Your task to perform on an android device: check android version Image 0: 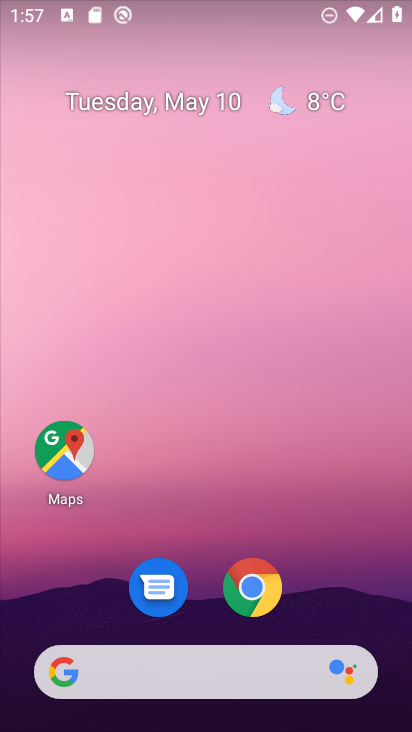
Step 0: drag from (389, 647) to (352, 224)
Your task to perform on an android device: check android version Image 1: 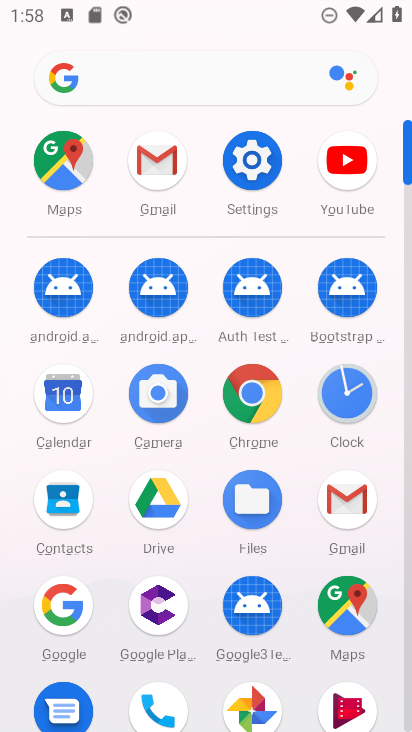
Step 1: click (400, 257)
Your task to perform on an android device: check android version Image 2: 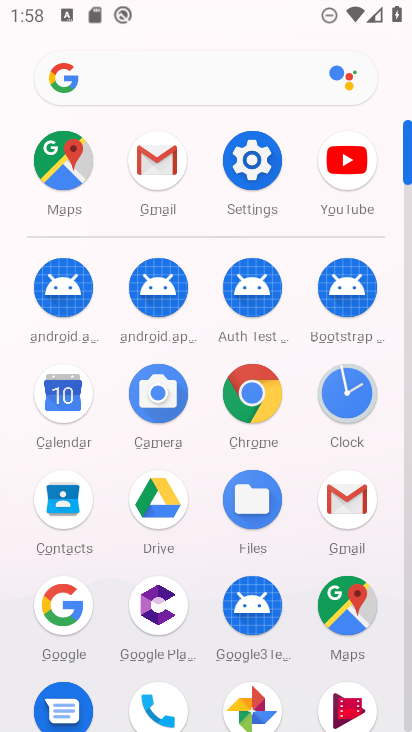
Step 2: click (63, 611)
Your task to perform on an android device: check android version Image 3: 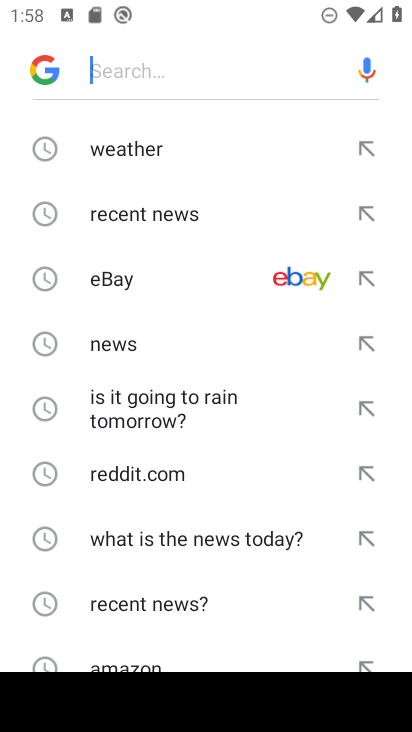
Step 3: press back button
Your task to perform on an android device: check android version Image 4: 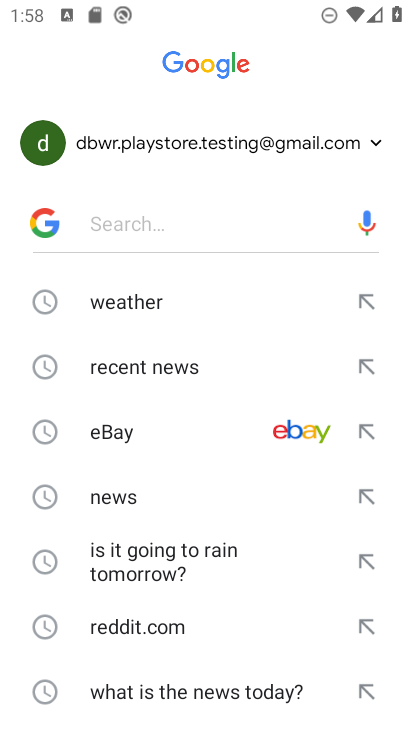
Step 4: press back button
Your task to perform on an android device: check android version Image 5: 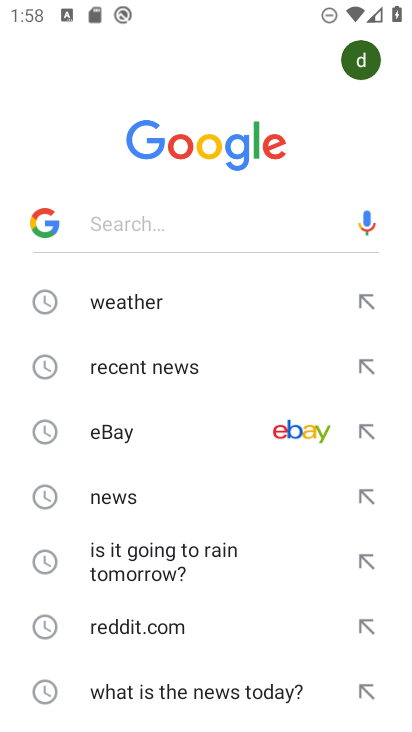
Step 5: press back button
Your task to perform on an android device: check android version Image 6: 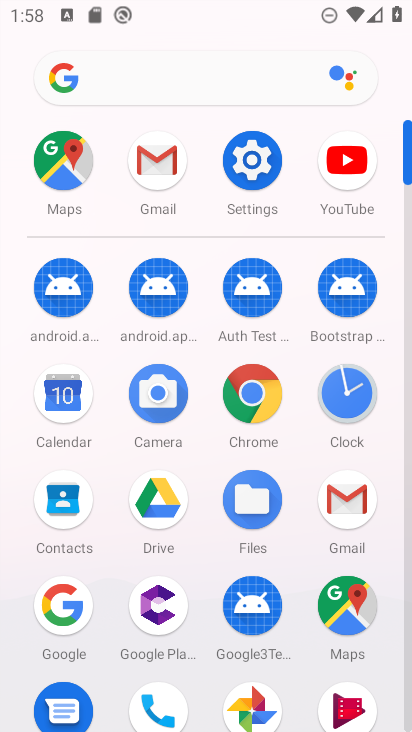
Step 6: click (244, 175)
Your task to perform on an android device: check android version Image 7: 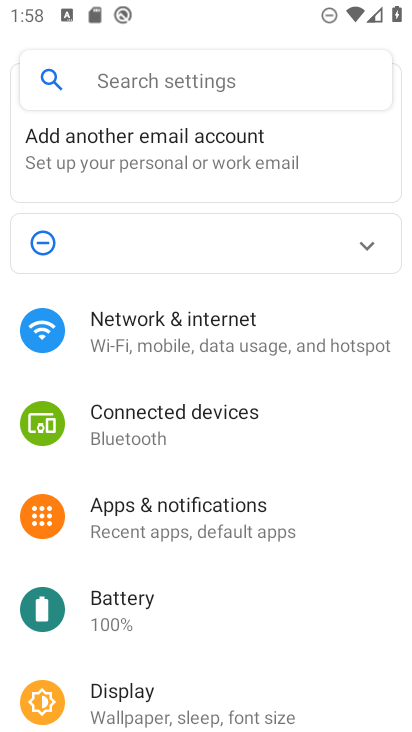
Step 7: click (145, 334)
Your task to perform on an android device: check android version Image 8: 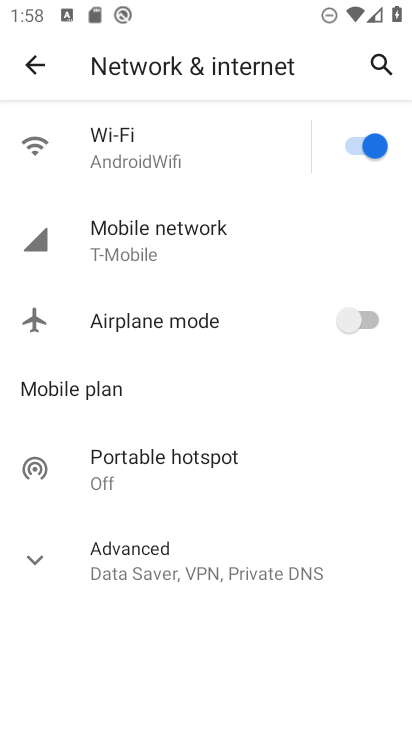
Step 8: press back button
Your task to perform on an android device: check android version Image 9: 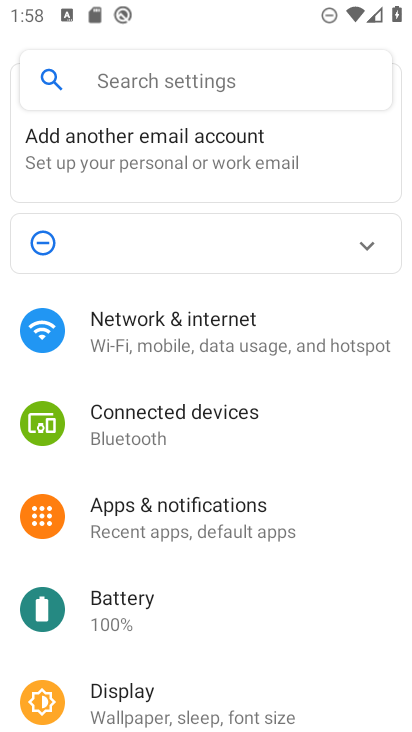
Step 9: drag from (370, 683) to (364, 304)
Your task to perform on an android device: check android version Image 10: 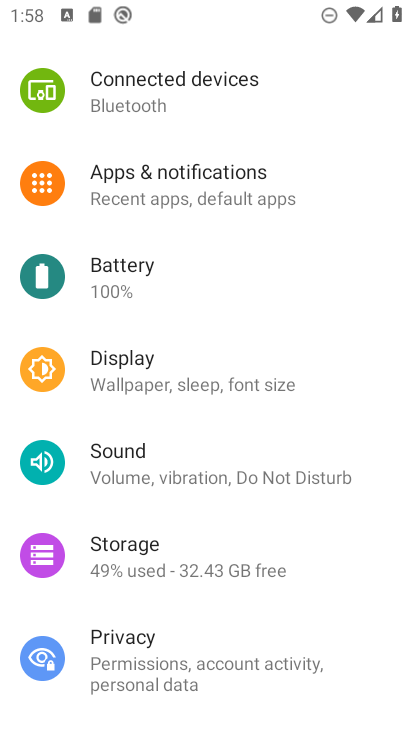
Step 10: drag from (385, 461) to (380, 261)
Your task to perform on an android device: check android version Image 11: 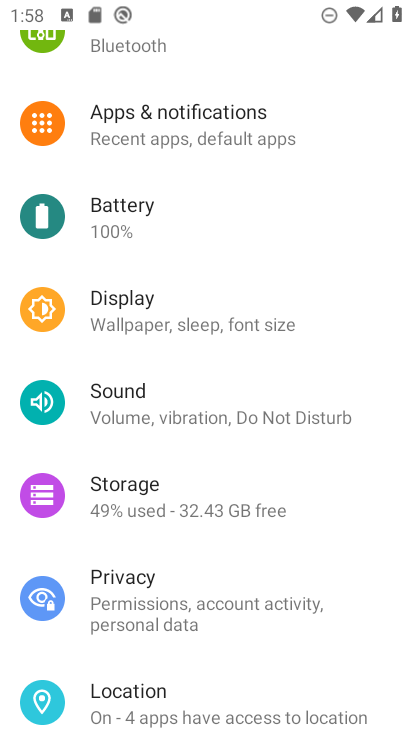
Step 11: drag from (397, 701) to (393, 304)
Your task to perform on an android device: check android version Image 12: 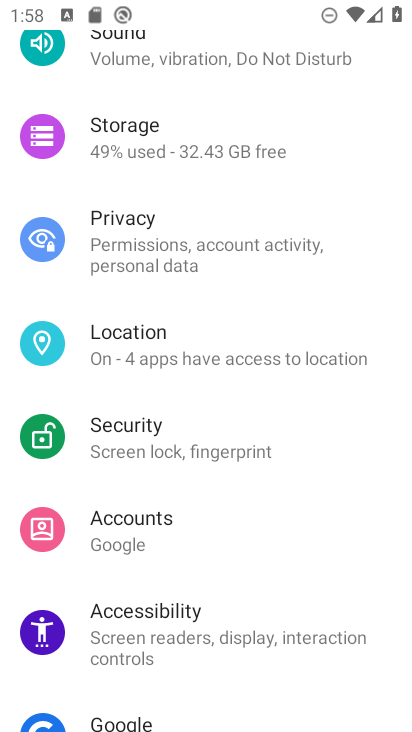
Step 12: drag from (393, 700) to (371, 190)
Your task to perform on an android device: check android version Image 13: 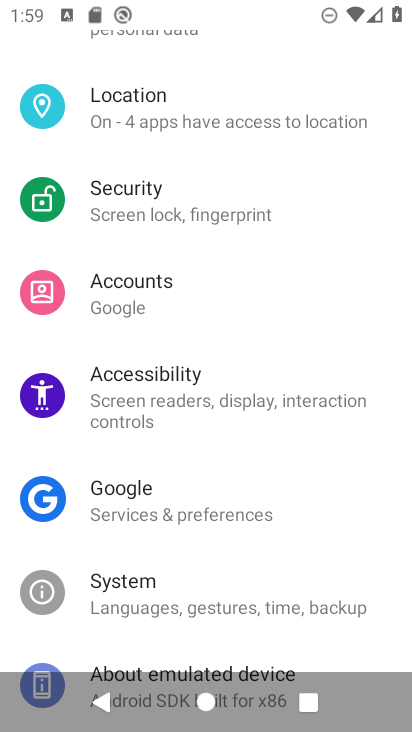
Step 13: drag from (388, 568) to (349, 240)
Your task to perform on an android device: check android version Image 14: 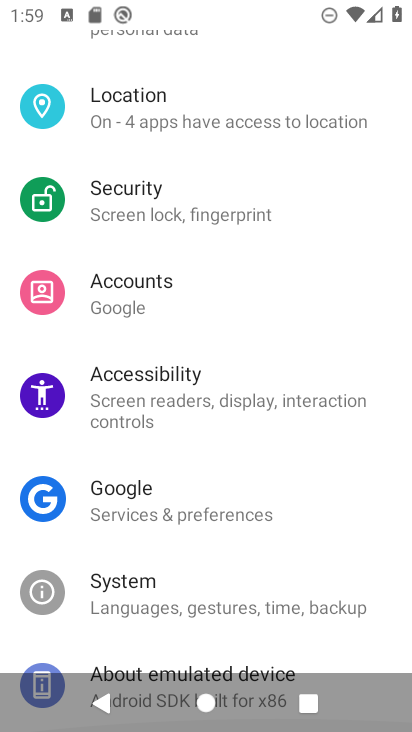
Step 14: drag from (391, 638) to (386, 230)
Your task to perform on an android device: check android version Image 15: 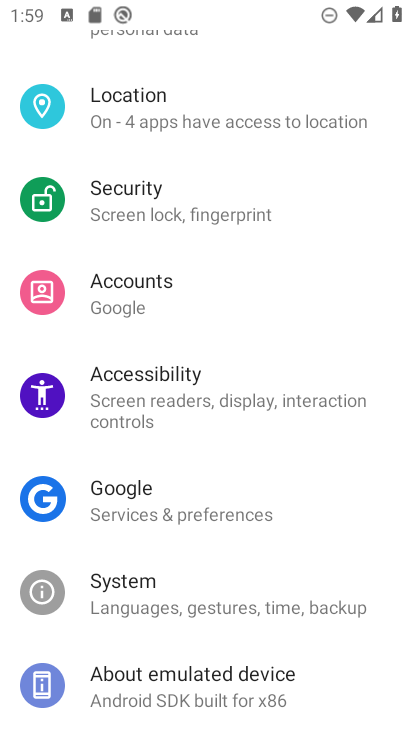
Step 15: click (195, 679)
Your task to perform on an android device: check android version Image 16: 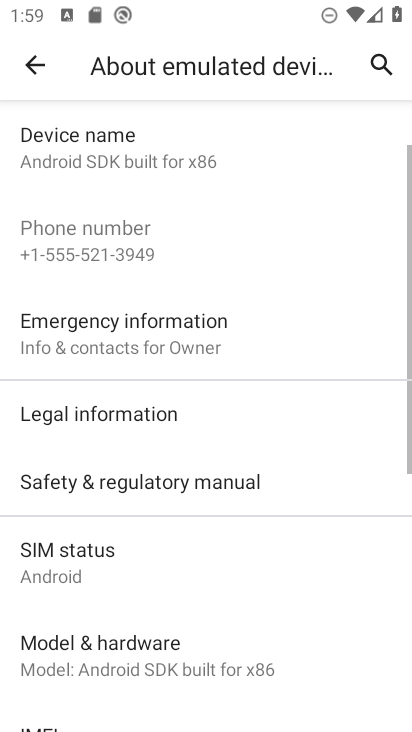
Step 16: drag from (349, 683) to (357, 281)
Your task to perform on an android device: check android version Image 17: 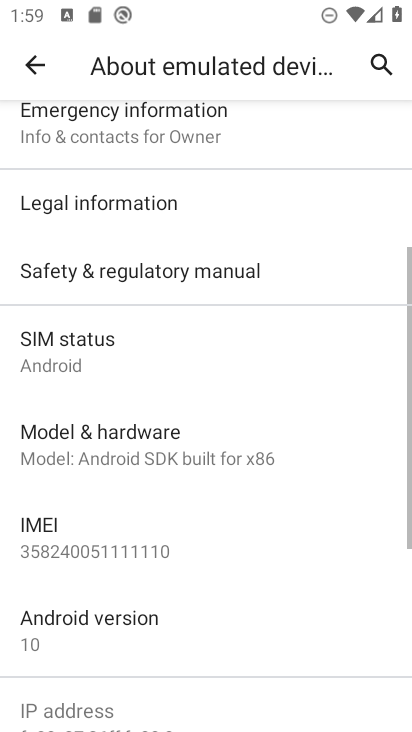
Step 17: click (111, 621)
Your task to perform on an android device: check android version Image 18: 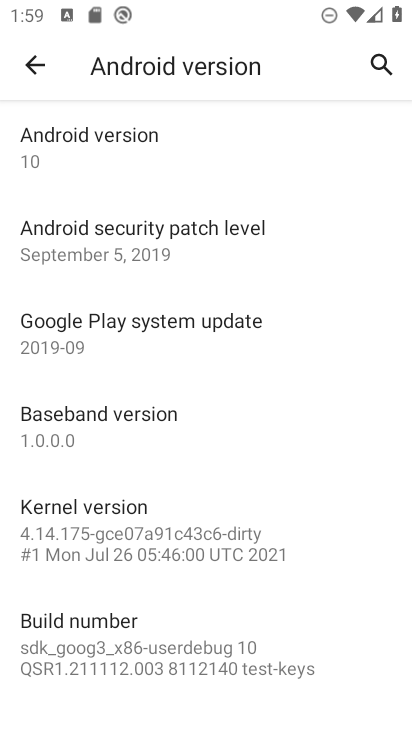
Step 18: click (88, 142)
Your task to perform on an android device: check android version Image 19: 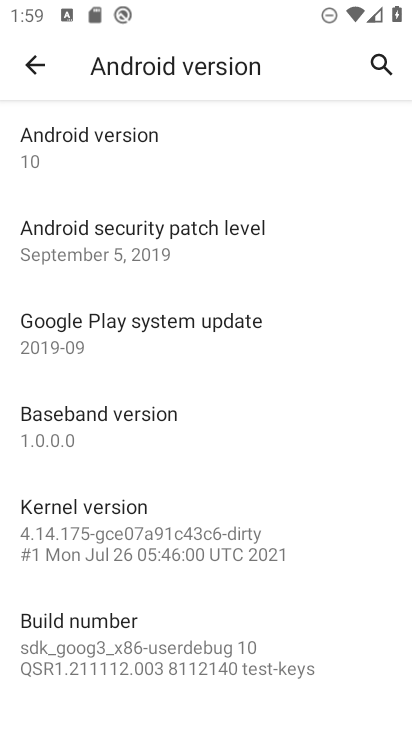
Step 19: task complete